Your task to perform on an android device: Open Youtube and go to the subscriptions tab Image 0: 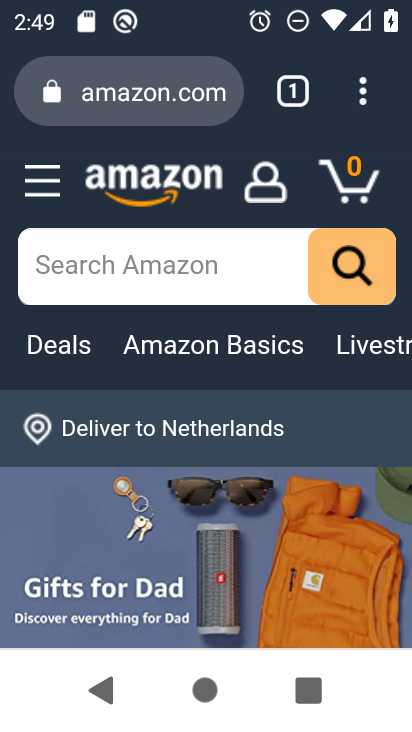
Step 0: press home button
Your task to perform on an android device: Open Youtube and go to the subscriptions tab Image 1: 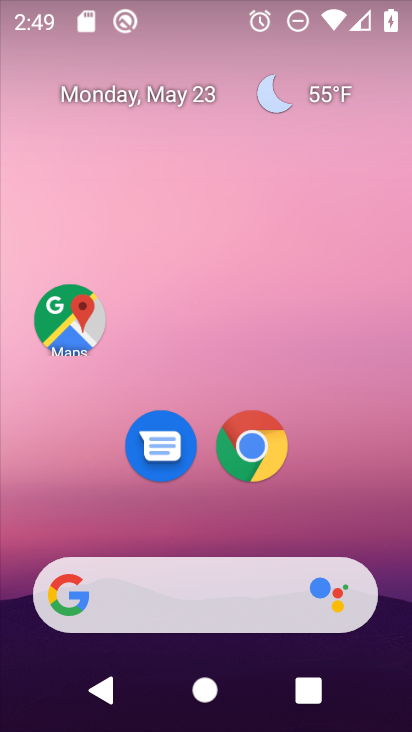
Step 1: drag from (190, 536) to (157, 173)
Your task to perform on an android device: Open Youtube and go to the subscriptions tab Image 2: 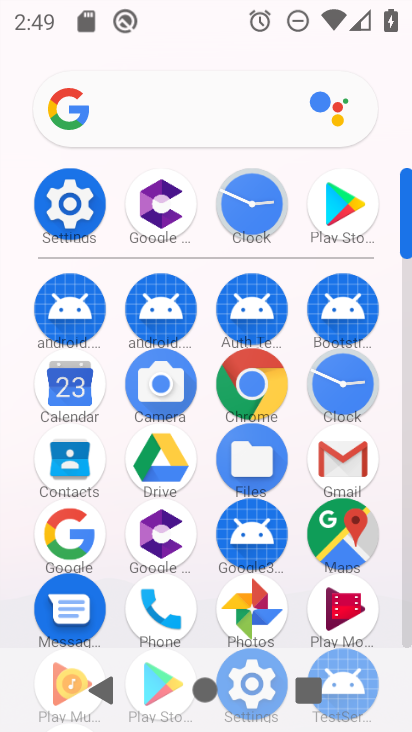
Step 2: drag from (195, 573) to (201, 154)
Your task to perform on an android device: Open Youtube and go to the subscriptions tab Image 3: 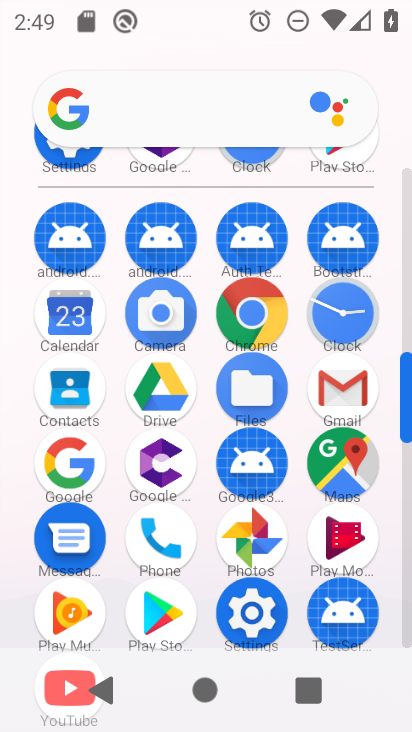
Step 3: drag from (118, 585) to (120, 254)
Your task to perform on an android device: Open Youtube and go to the subscriptions tab Image 4: 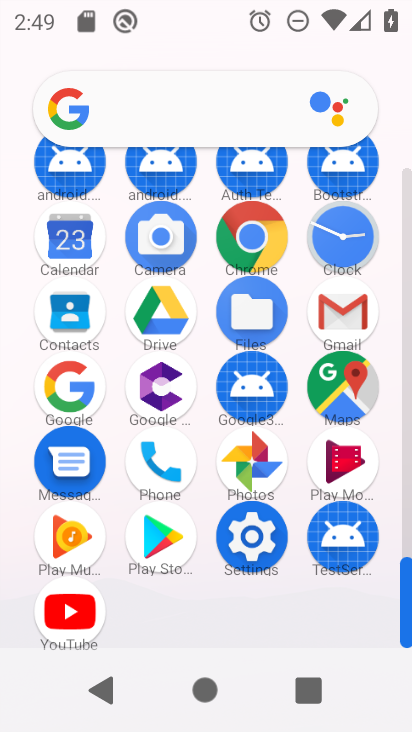
Step 4: click (81, 588)
Your task to perform on an android device: Open Youtube and go to the subscriptions tab Image 5: 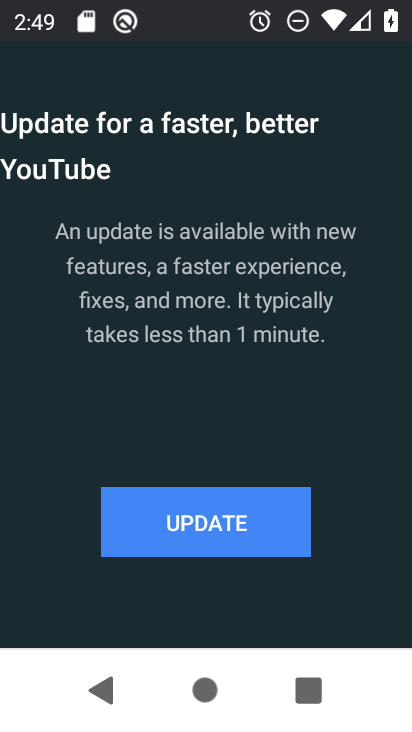
Step 5: drag from (249, 521) to (199, 521)
Your task to perform on an android device: Open Youtube and go to the subscriptions tab Image 6: 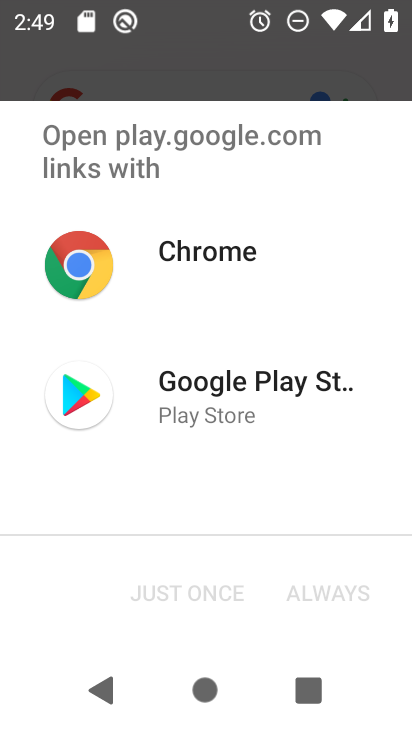
Step 6: click (160, 412)
Your task to perform on an android device: Open Youtube and go to the subscriptions tab Image 7: 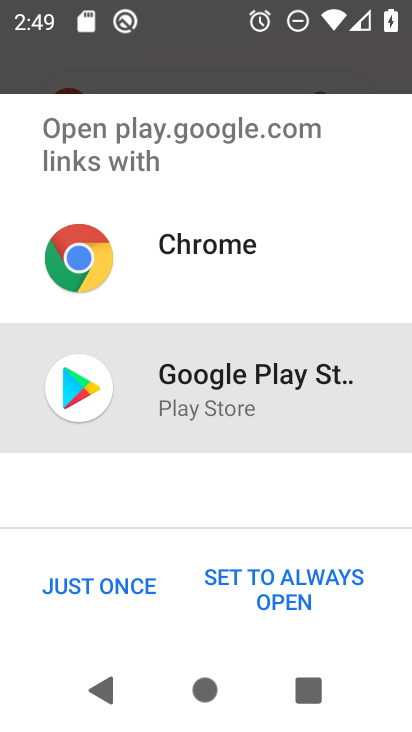
Step 7: click (134, 577)
Your task to perform on an android device: Open Youtube and go to the subscriptions tab Image 8: 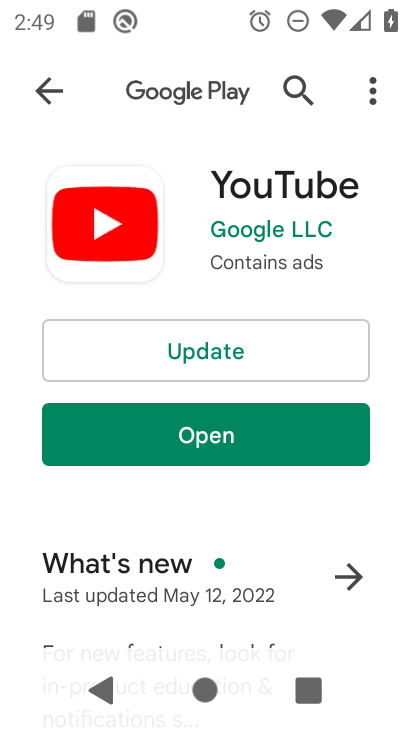
Step 8: click (165, 353)
Your task to perform on an android device: Open Youtube and go to the subscriptions tab Image 9: 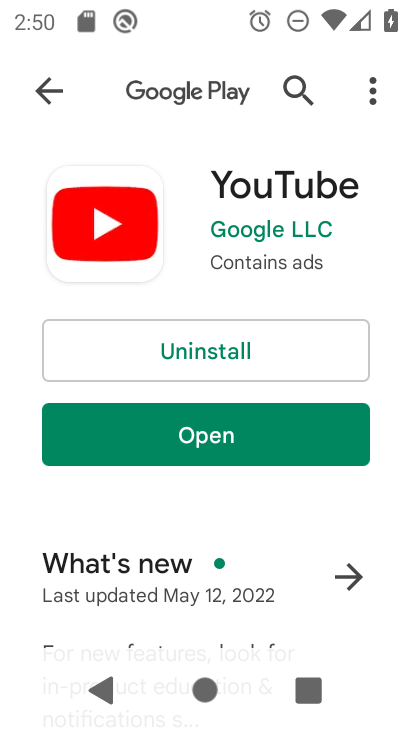
Step 9: click (275, 428)
Your task to perform on an android device: Open Youtube and go to the subscriptions tab Image 10: 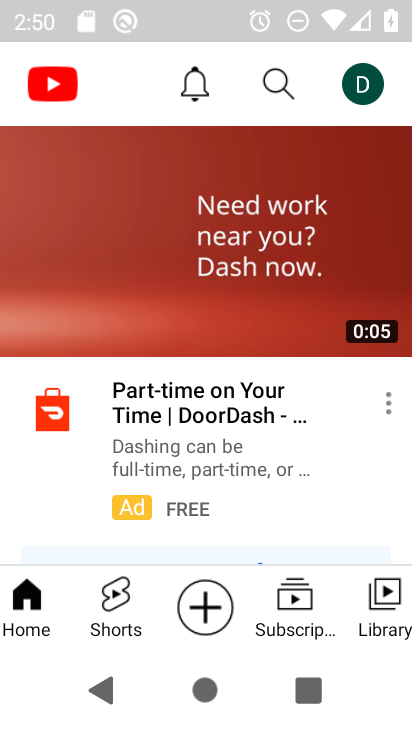
Step 10: click (289, 602)
Your task to perform on an android device: Open Youtube and go to the subscriptions tab Image 11: 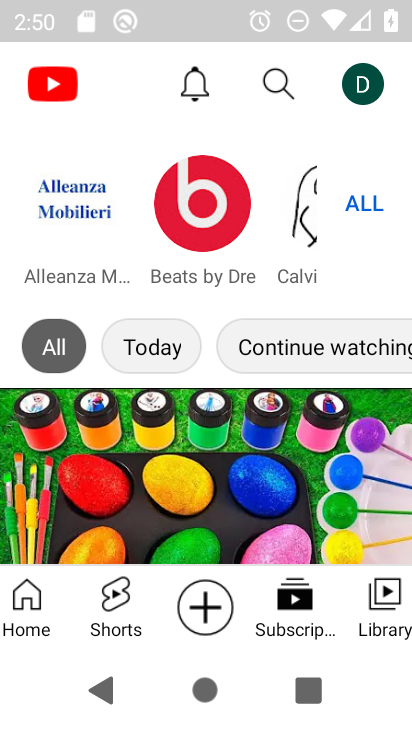
Step 11: task complete